Your task to perform on an android device: see creations saved in the google photos Image 0: 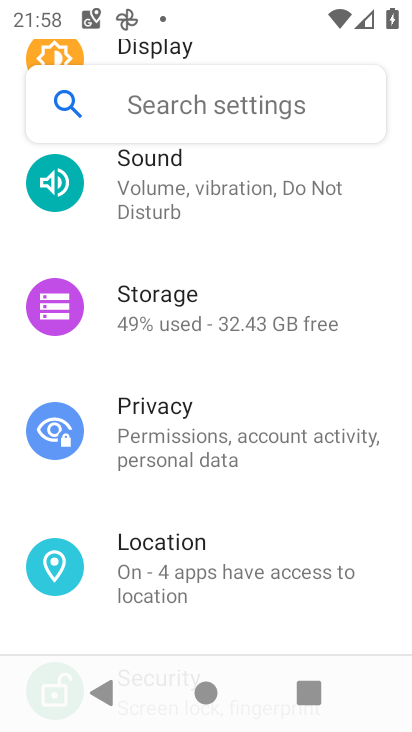
Step 0: press home button
Your task to perform on an android device: see creations saved in the google photos Image 1: 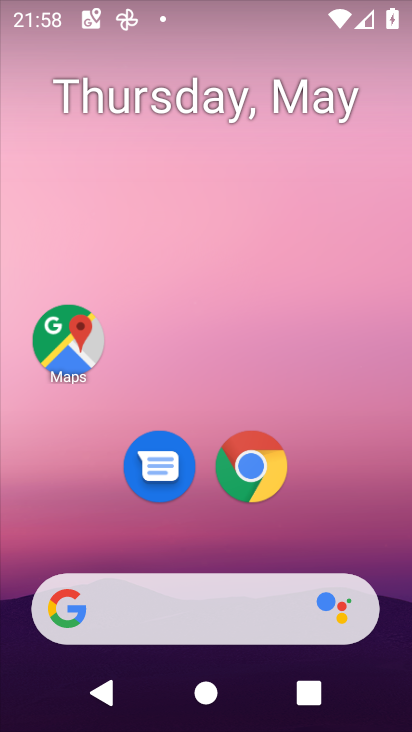
Step 1: drag from (347, 510) to (306, 69)
Your task to perform on an android device: see creations saved in the google photos Image 2: 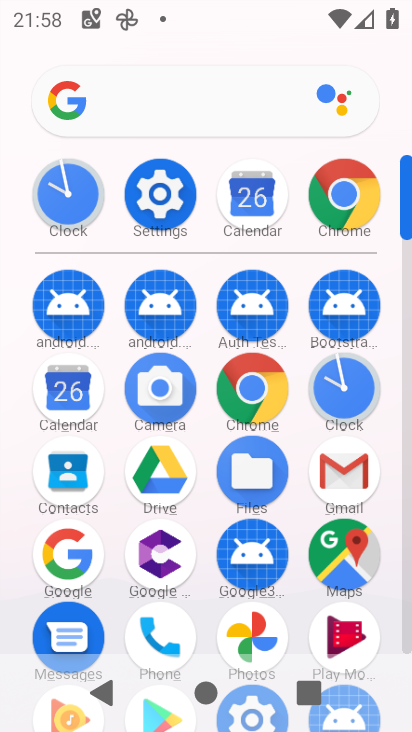
Step 2: click (250, 629)
Your task to perform on an android device: see creations saved in the google photos Image 3: 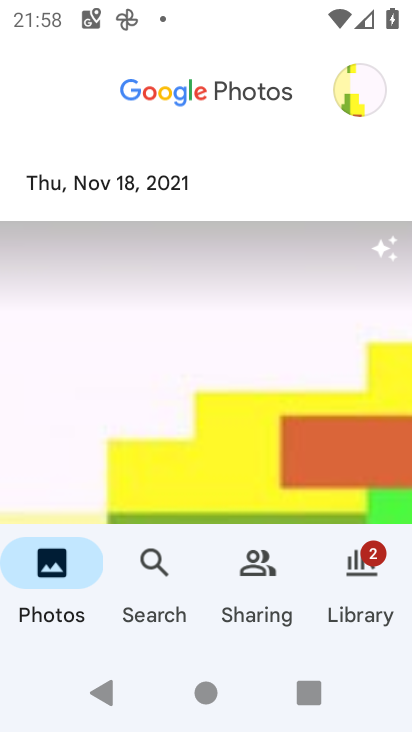
Step 3: click (373, 578)
Your task to perform on an android device: see creations saved in the google photos Image 4: 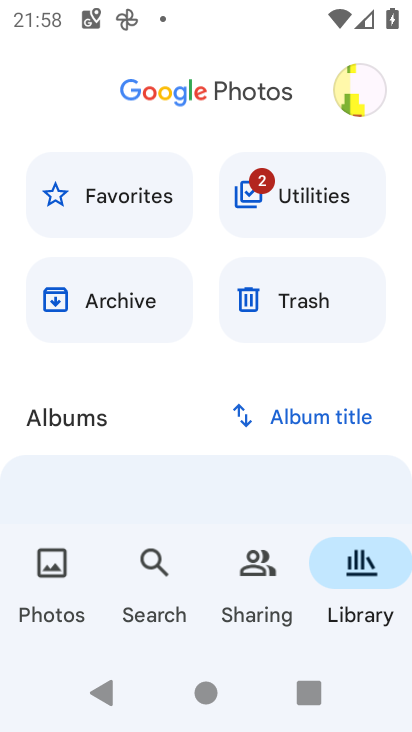
Step 4: click (354, 590)
Your task to perform on an android device: see creations saved in the google photos Image 5: 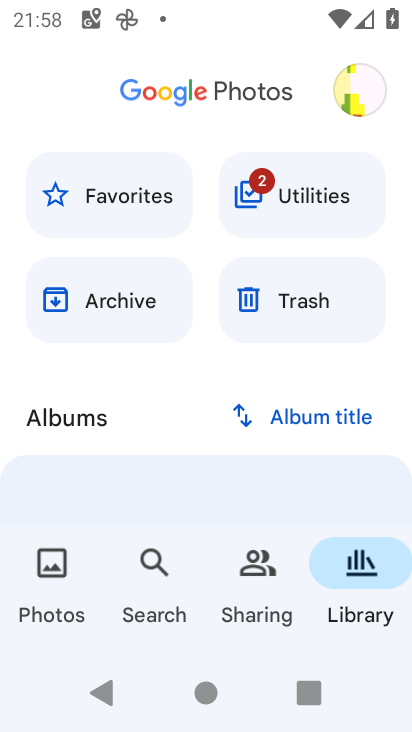
Step 5: click (354, 590)
Your task to perform on an android device: see creations saved in the google photos Image 6: 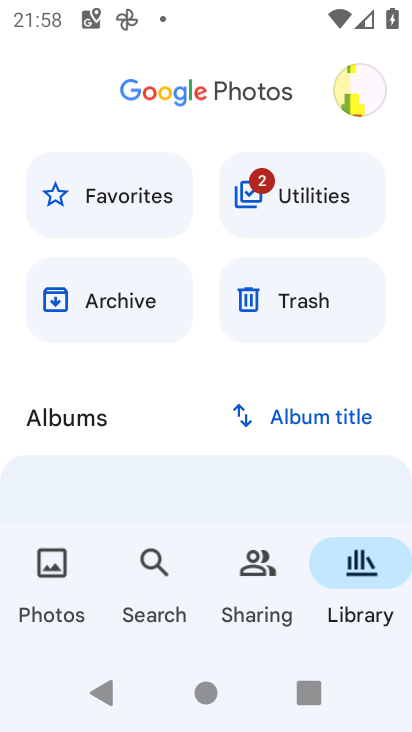
Step 6: click (109, 326)
Your task to perform on an android device: see creations saved in the google photos Image 7: 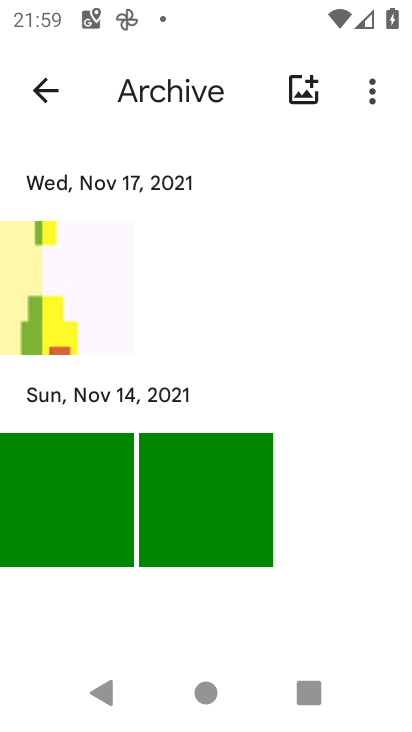
Step 7: task complete